Your task to perform on an android device: turn off picture-in-picture Image 0: 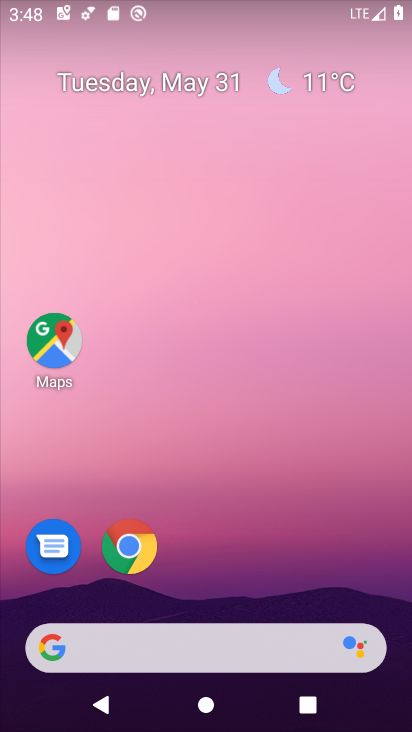
Step 0: drag from (290, 426) to (206, 58)
Your task to perform on an android device: turn off picture-in-picture Image 1: 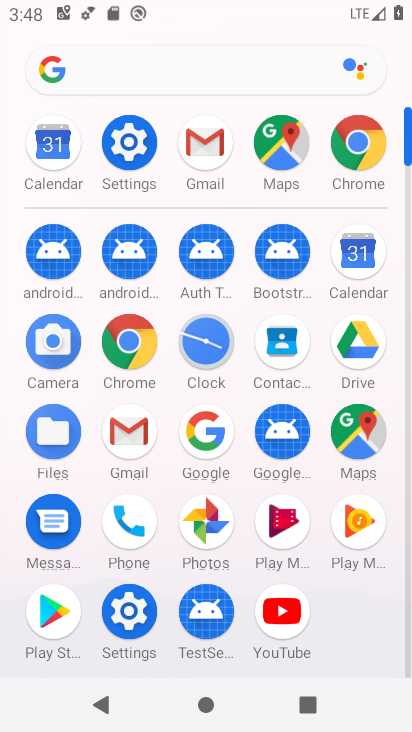
Step 1: click (138, 161)
Your task to perform on an android device: turn off picture-in-picture Image 2: 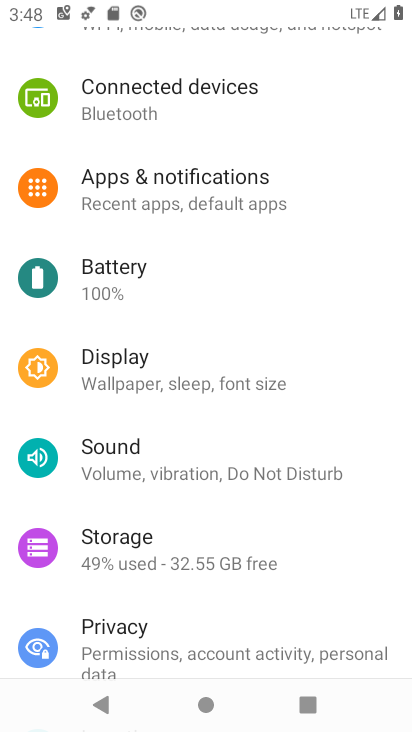
Step 2: drag from (234, 528) to (190, 616)
Your task to perform on an android device: turn off picture-in-picture Image 3: 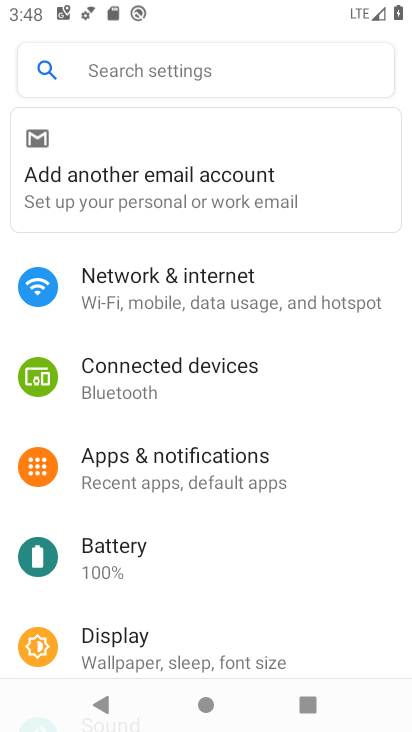
Step 3: click (188, 451)
Your task to perform on an android device: turn off picture-in-picture Image 4: 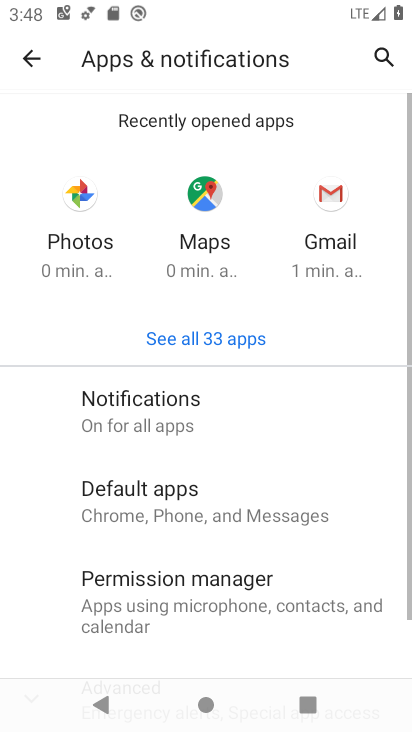
Step 4: drag from (232, 537) to (201, 21)
Your task to perform on an android device: turn off picture-in-picture Image 5: 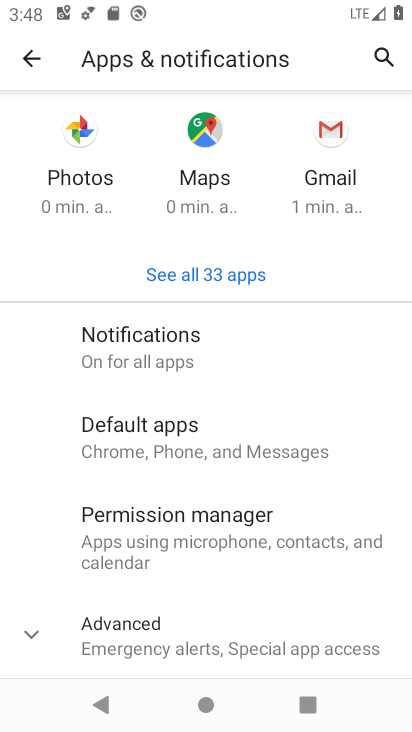
Step 5: click (234, 621)
Your task to perform on an android device: turn off picture-in-picture Image 6: 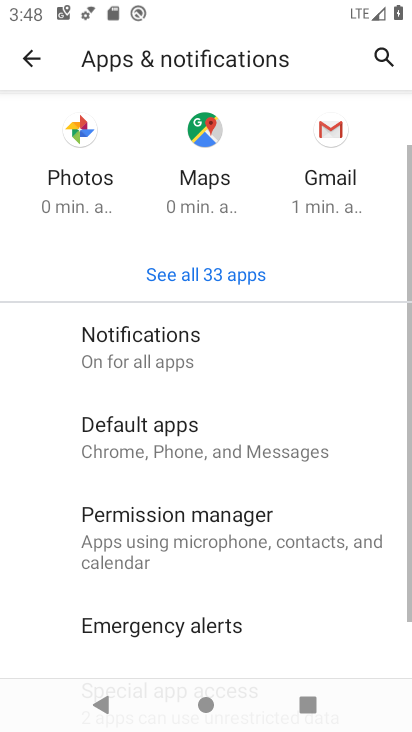
Step 6: drag from (220, 587) to (228, 190)
Your task to perform on an android device: turn off picture-in-picture Image 7: 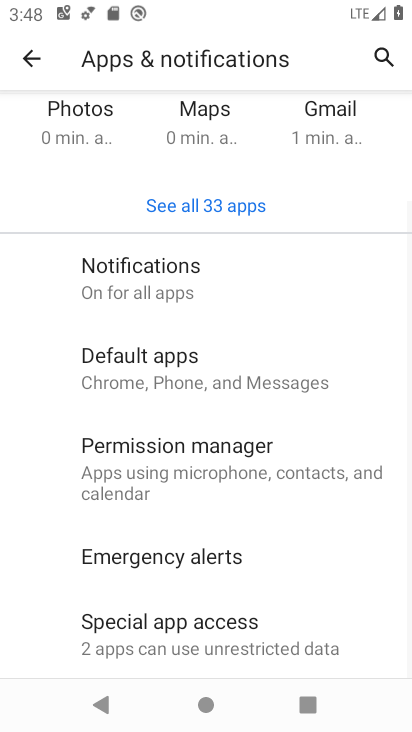
Step 7: click (193, 635)
Your task to perform on an android device: turn off picture-in-picture Image 8: 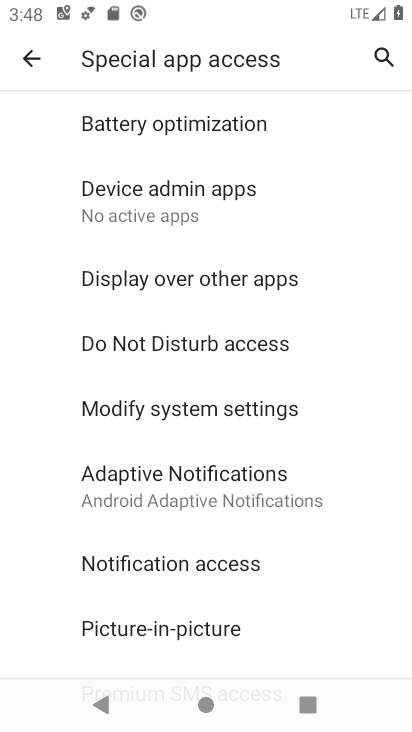
Step 8: drag from (184, 491) to (204, 198)
Your task to perform on an android device: turn off picture-in-picture Image 9: 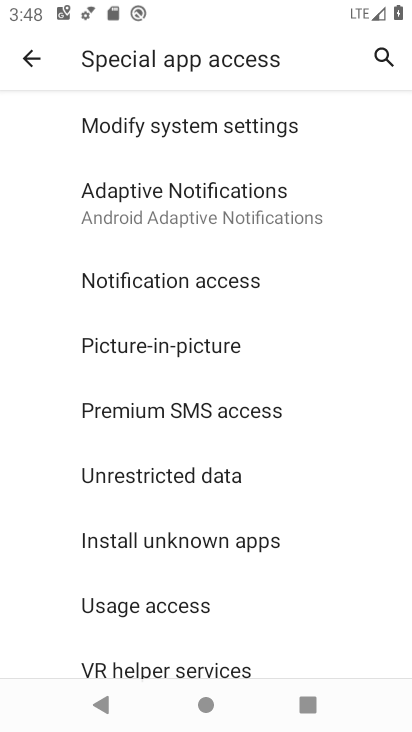
Step 9: click (191, 338)
Your task to perform on an android device: turn off picture-in-picture Image 10: 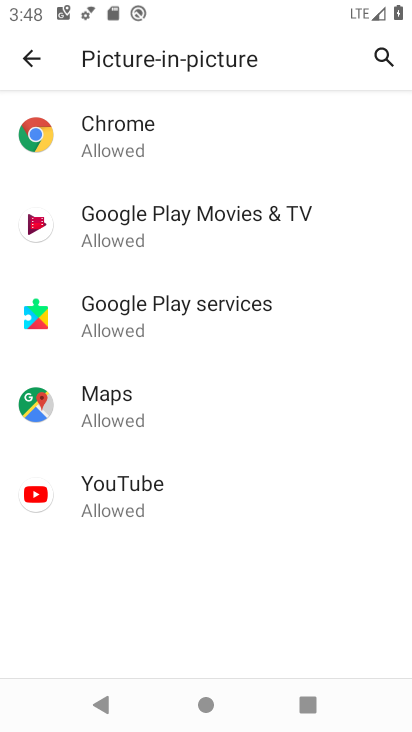
Step 10: click (287, 268)
Your task to perform on an android device: turn off picture-in-picture Image 11: 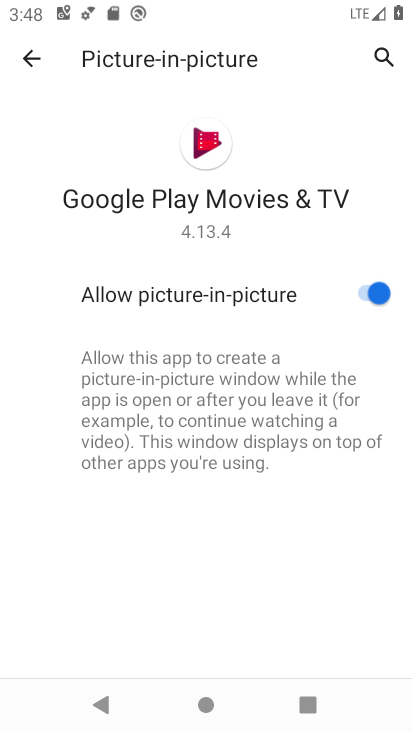
Step 11: click (364, 272)
Your task to perform on an android device: turn off picture-in-picture Image 12: 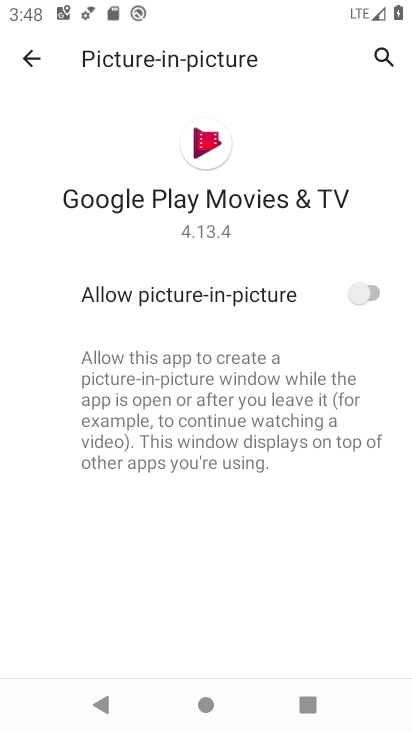
Step 12: task complete